Your task to perform on an android device: turn off data saver in the chrome app Image 0: 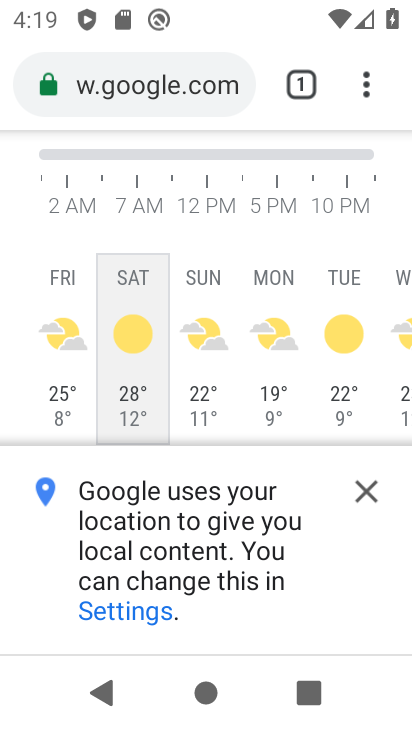
Step 0: press home button
Your task to perform on an android device: turn off data saver in the chrome app Image 1: 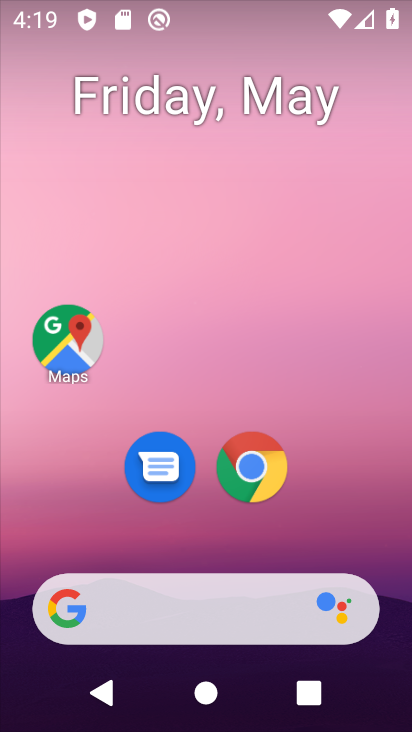
Step 1: click (364, 486)
Your task to perform on an android device: turn off data saver in the chrome app Image 2: 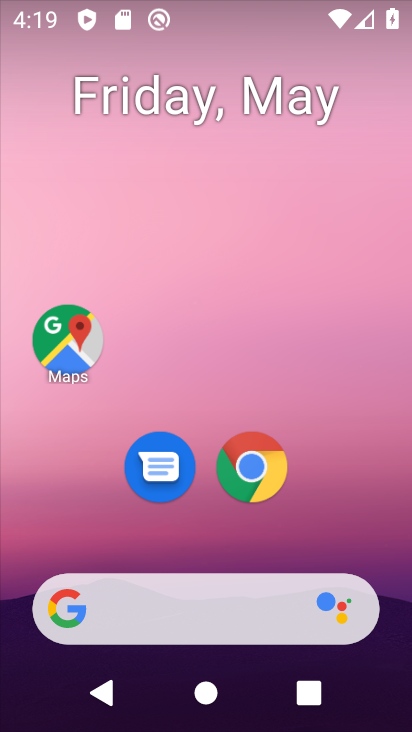
Step 2: click (258, 461)
Your task to perform on an android device: turn off data saver in the chrome app Image 3: 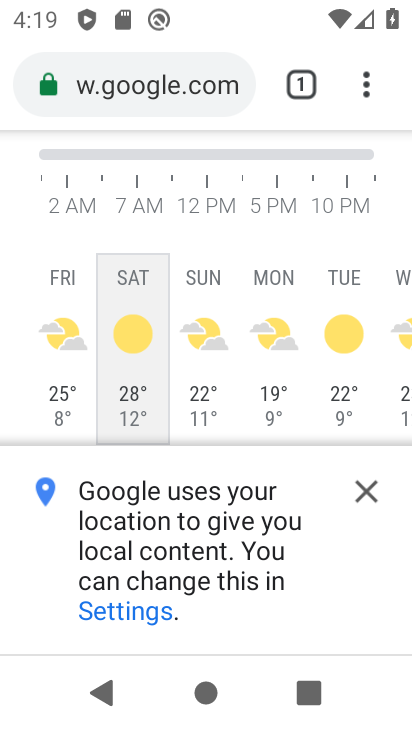
Step 3: click (382, 66)
Your task to perform on an android device: turn off data saver in the chrome app Image 4: 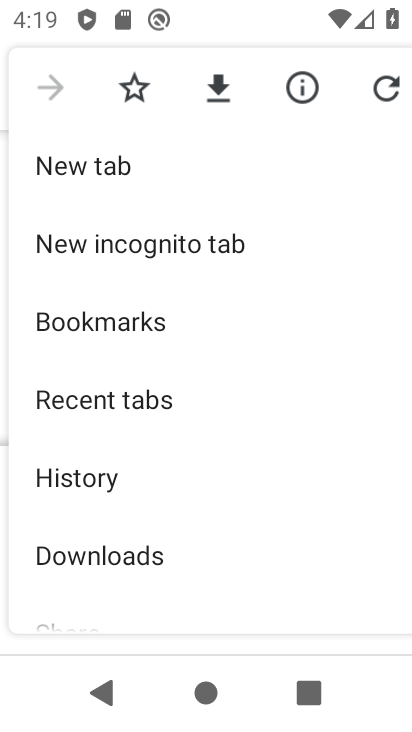
Step 4: drag from (236, 469) to (358, 39)
Your task to perform on an android device: turn off data saver in the chrome app Image 5: 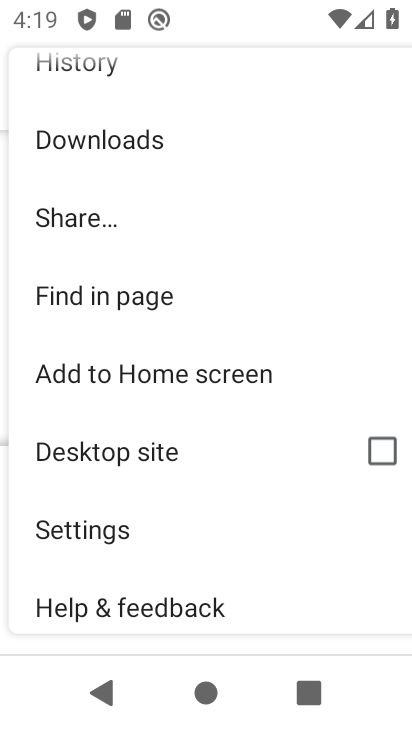
Step 5: drag from (241, 474) to (304, 110)
Your task to perform on an android device: turn off data saver in the chrome app Image 6: 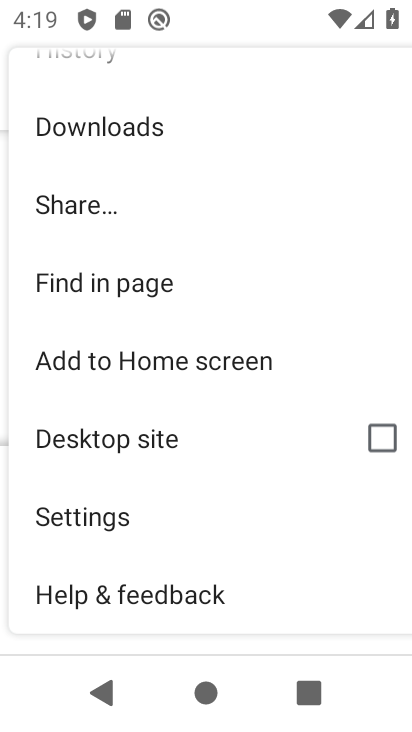
Step 6: click (89, 498)
Your task to perform on an android device: turn off data saver in the chrome app Image 7: 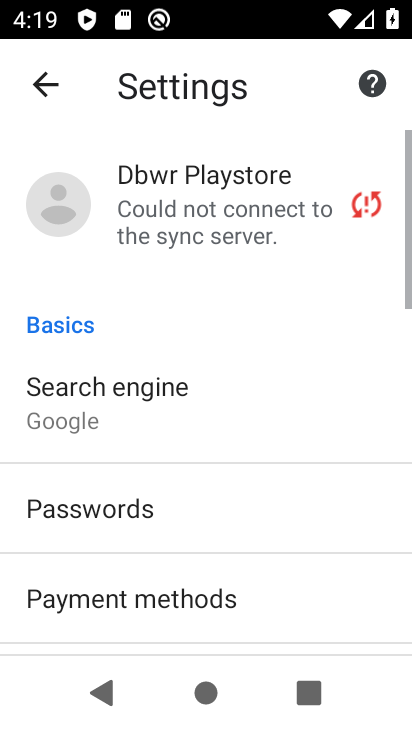
Step 7: drag from (286, 610) to (341, 203)
Your task to perform on an android device: turn off data saver in the chrome app Image 8: 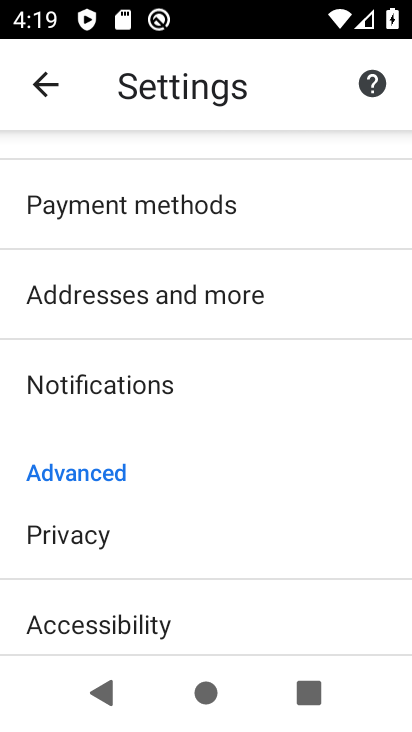
Step 8: drag from (271, 597) to (326, 200)
Your task to perform on an android device: turn off data saver in the chrome app Image 9: 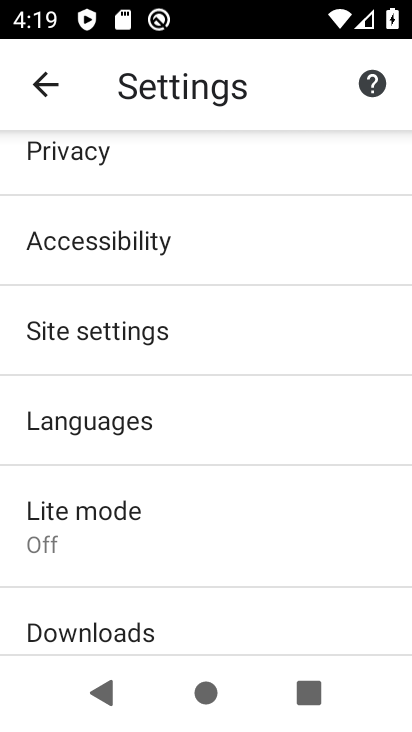
Step 9: drag from (171, 512) to (261, 259)
Your task to perform on an android device: turn off data saver in the chrome app Image 10: 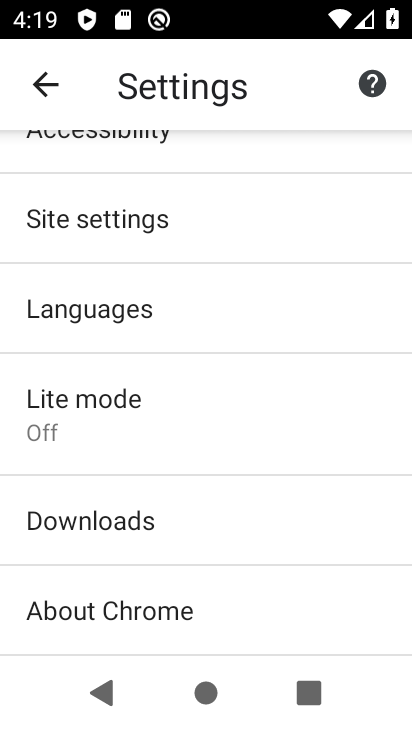
Step 10: click (144, 430)
Your task to perform on an android device: turn off data saver in the chrome app Image 11: 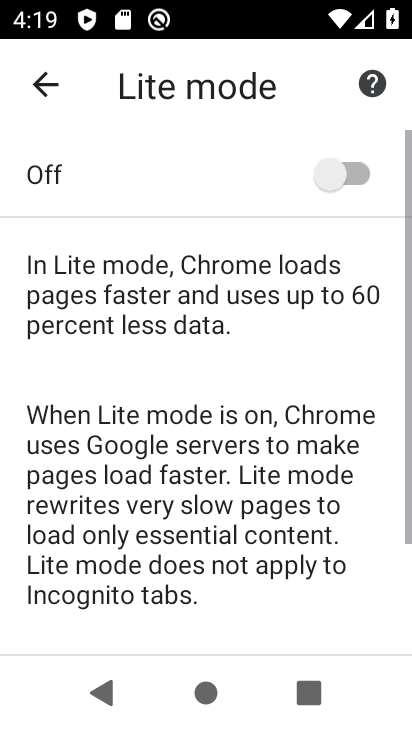
Step 11: task complete